Your task to perform on an android device: Open calendar and show me the second week of next month Image 0: 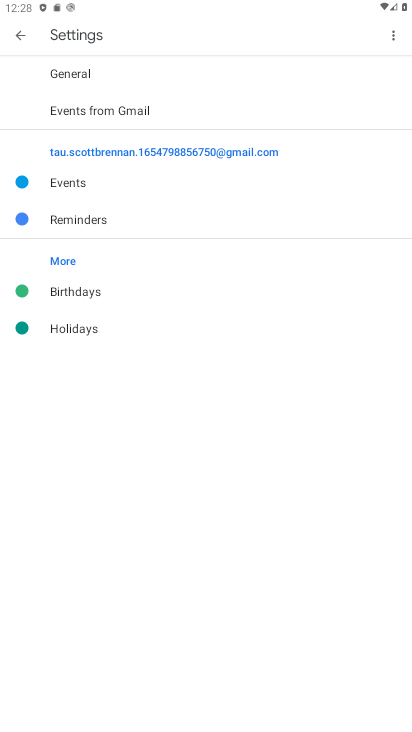
Step 0: task complete